Your task to perform on an android device: toggle pop-ups in chrome Image 0: 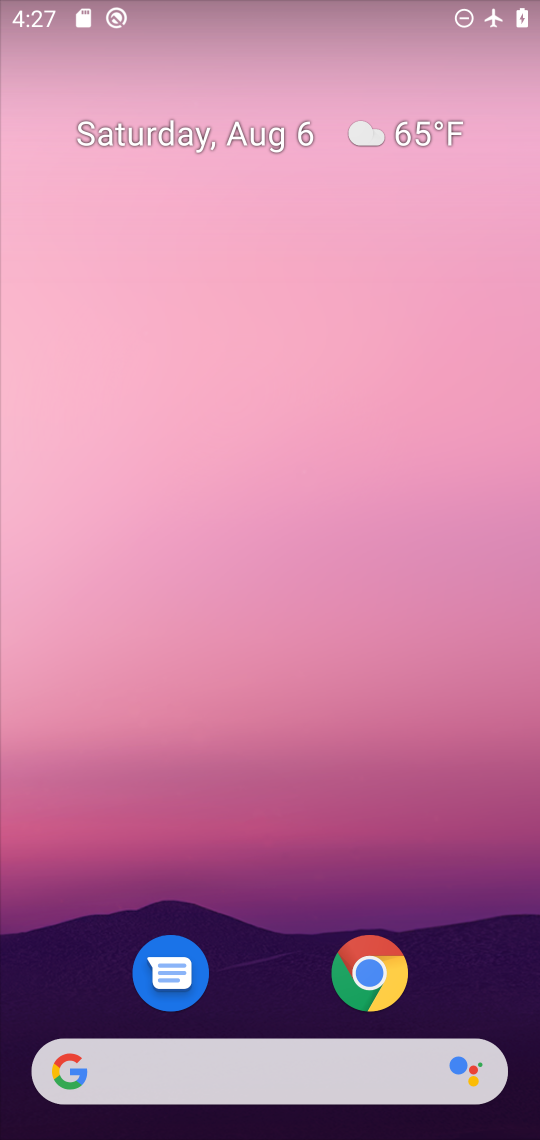
Step 0: drag from (252, 894) to (287, 5)
Your task to perform on an android device: toggle pop-ups in chrome Image 1: 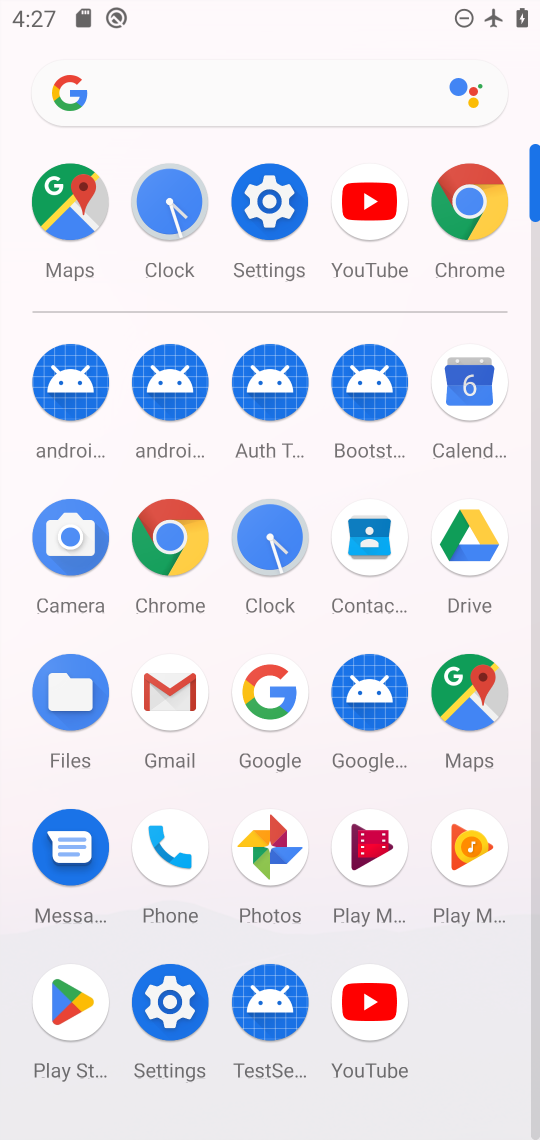
Step 1: click (175, 540)
Your task to perform on an android device: toggle pop-ups in chrome Image 2: 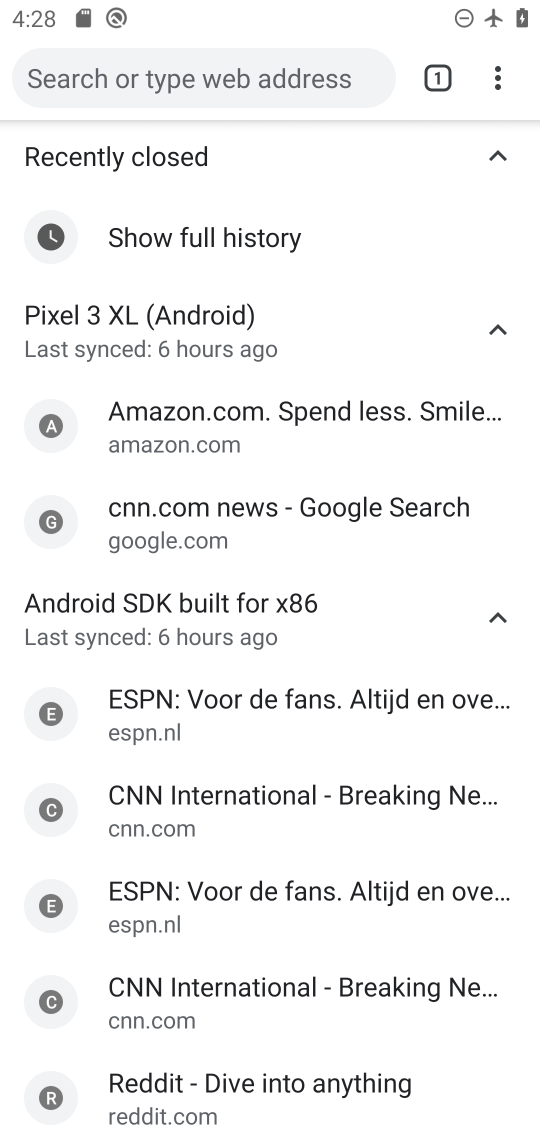
Step 2: drag from (500, 77) to (286, 670)
Your task to perform on an android device: toggle pop-ups in chrome Image 3: 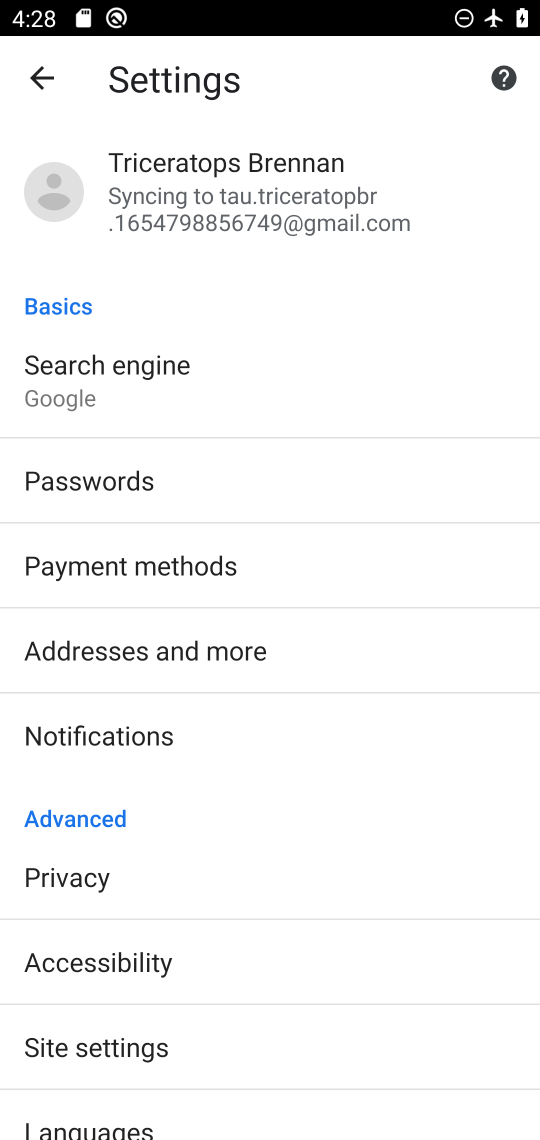
Step 3: drag from (254, 993) to (339, 455)
Your task to perform on an android device: toggle pop-ups in chrome Image 4: 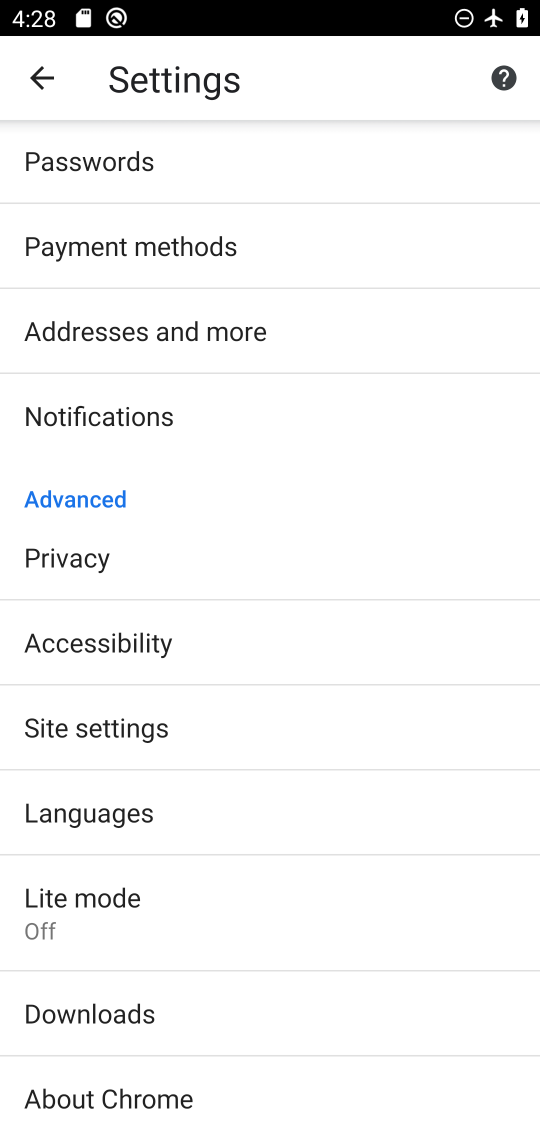
Step 4: click (106, 722)
Your task to perform on an android device: toggle pop-ups in chrome Image 5: 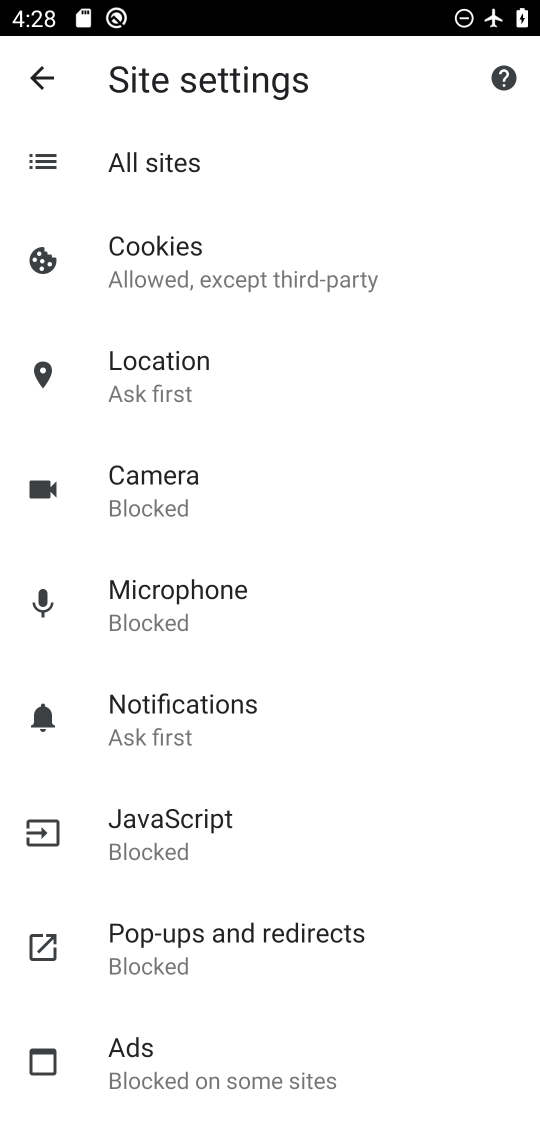
Step 5: click (214, 917)
Your task to perform on an android device: toggle pop-ups in chrome Image 6: 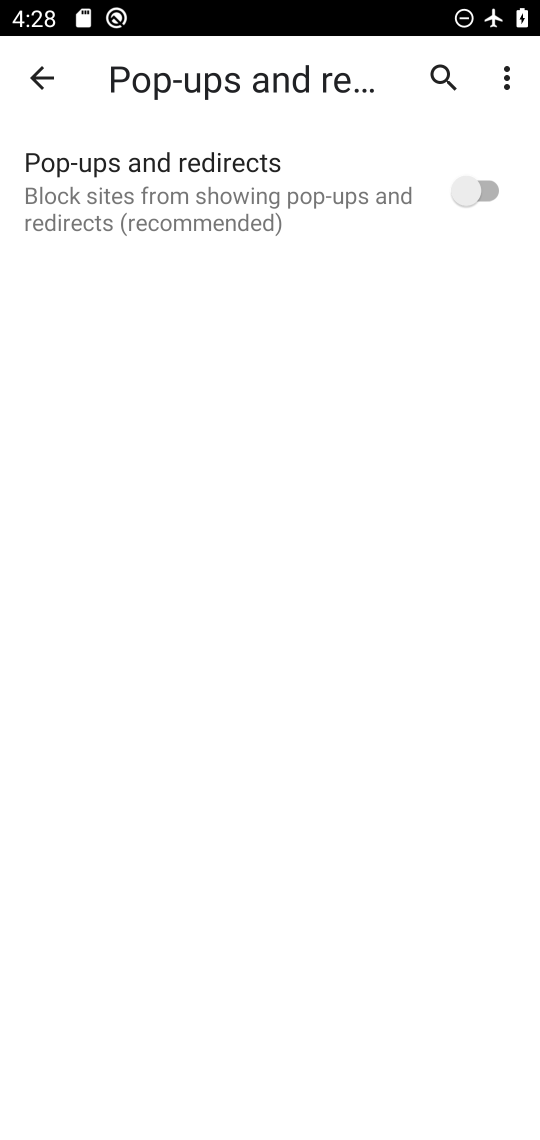
Step 6: click (456, 171)
Your task to perform on an android device: toggle pop-ups in chrome Image 7: 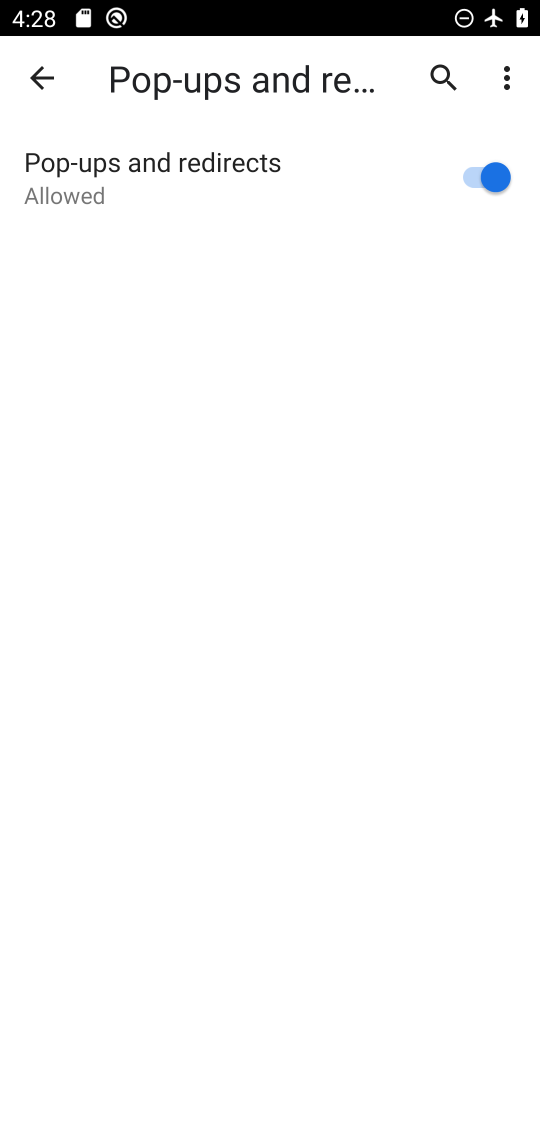
Step 7: task complete